Your task to perform on an android device: Open calendar and show me the third week of next month Image 0: 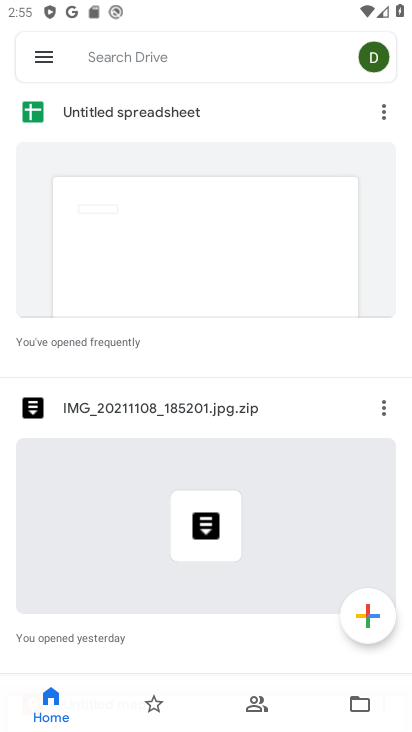
Step 0: press home button
Your task to perform on an android device: Open calendar and show me the third week of next month Image 1: 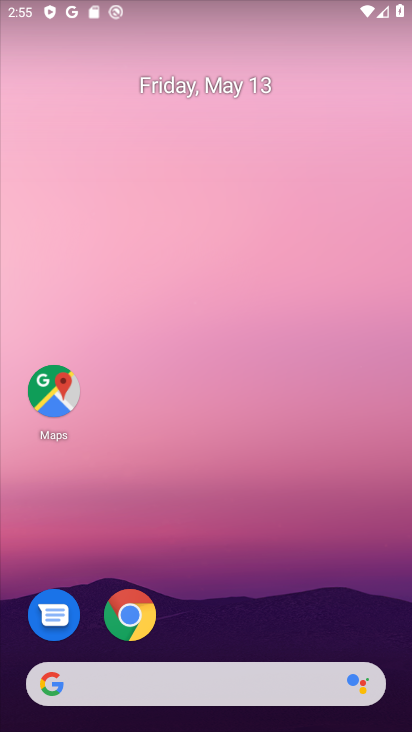
Step 1: drag from (125, 673) to (268, 204)
Your task to perform on an android device: Open calendar and show me the third week of next month Image 2: 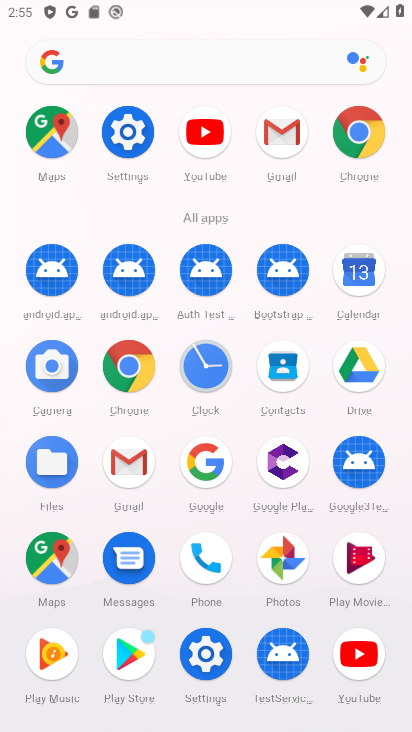
Step 2: click (359, 280)
Your task to perform on an android device: Open calendar and show me the third week of next month Image 3: 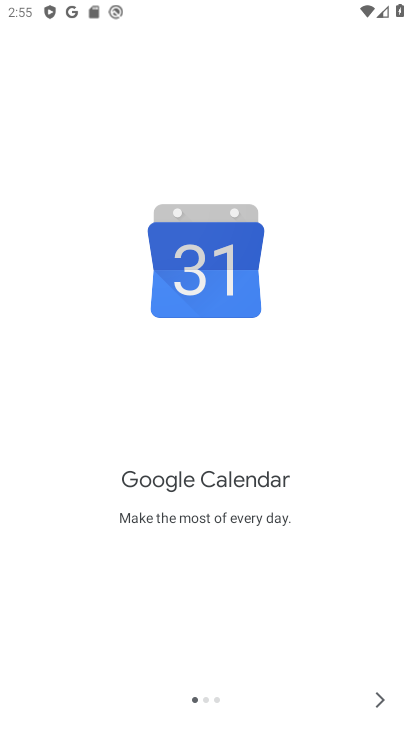
Step 3: click (390, 707)
Your task to perform on an android device: Open calendar and show me the third week of next month Image 4: 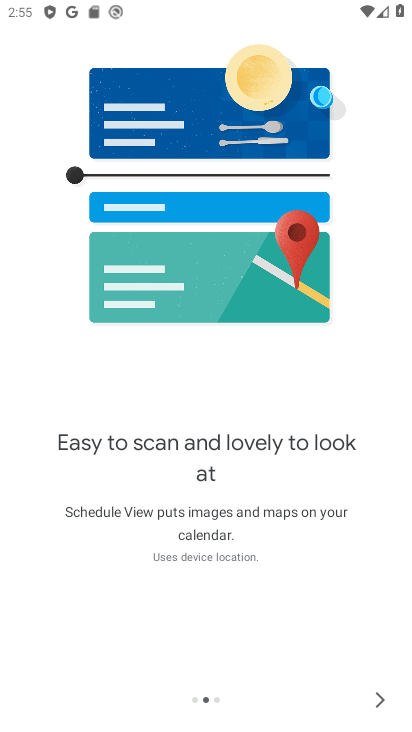
Step 4: click (386, 707)
Your task to perform on an android device: Open calendar and show me the third week of next month Image 5: 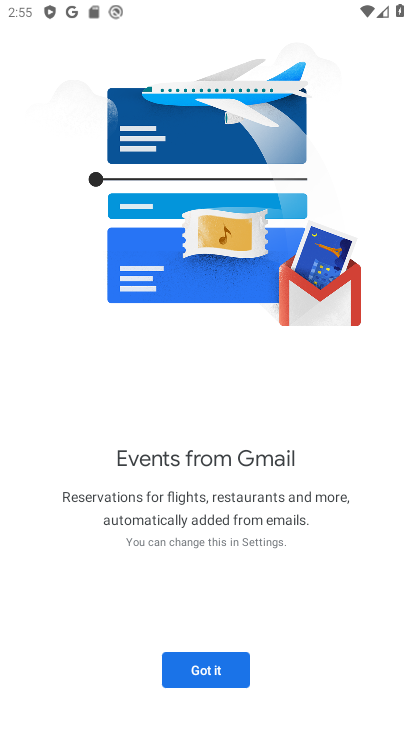
Step 5: click (203, 674)
Your task to perform on an android device: Open calendar and show me the third week of next month Image 6: 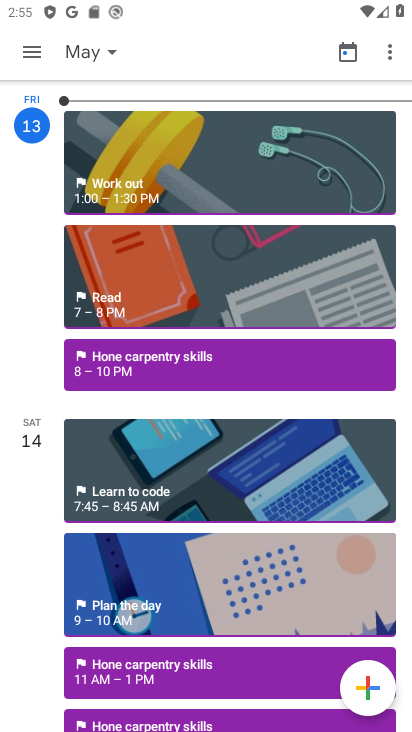
Step 6: click (88, 52)
Your task to perform on an android device: Open calendar and show me the third week of next month Image 7: 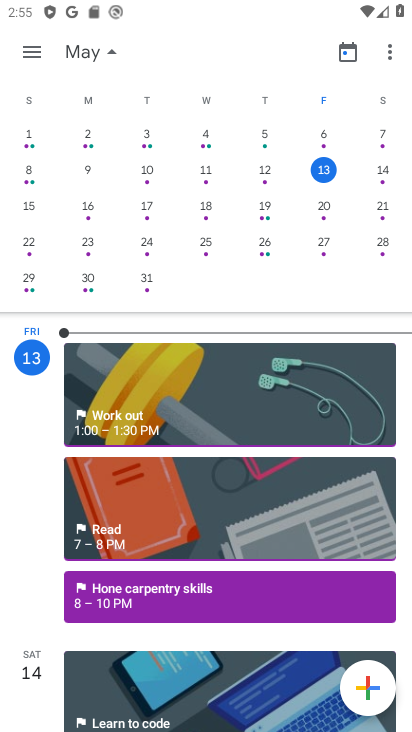
Step 7: drag from (351, 204) to (82, 153)
Your task to perform on an android device: Open calendar and show me the third week of next month Image 8: 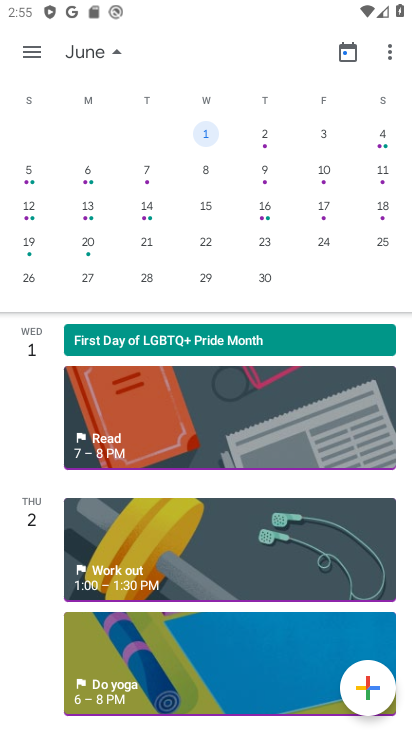
Step 8: click (30, 207)
Your task to perform on an android device: Open calendar and show me the third week of next month Image 9: 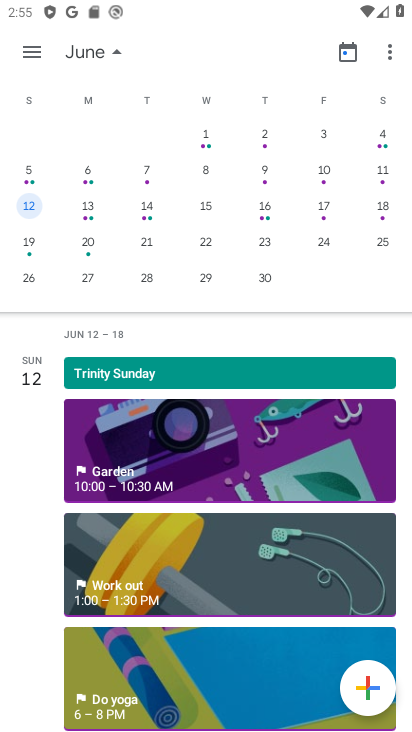
Step 9: click (35, 52)
Your task to perform on an android device: Open calendar and show me the third week of next month Image 10: 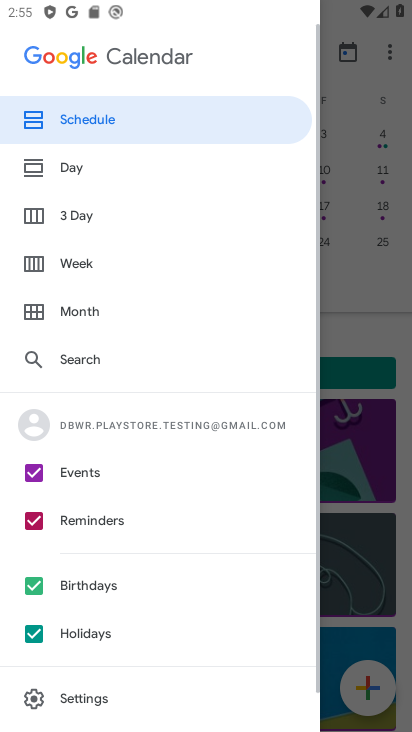
Step 10: click (81, 261)
Your task to perform on an android device: Open calendar and show me the third week of next month Image 11: 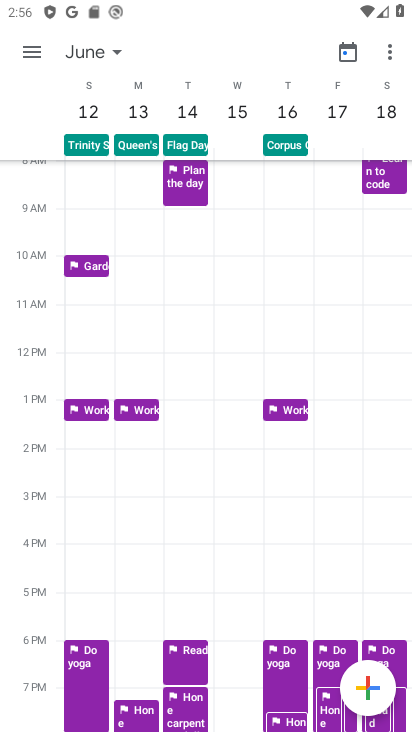
Step 11: task complete